Your task to perform on an android device: turn off data saver in the chrome app Image 0: 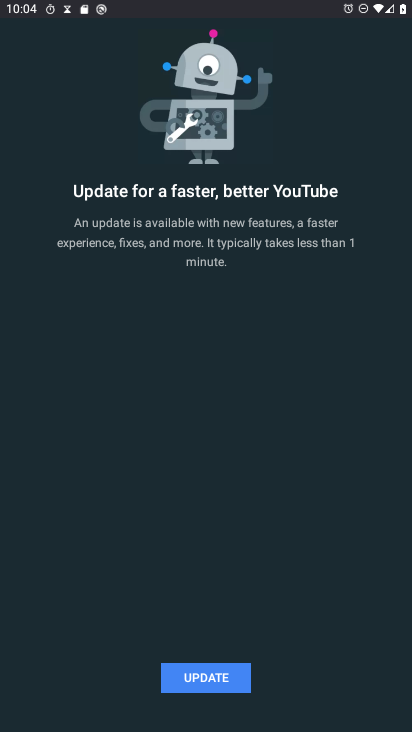
Step 0: press home button
Your task to perform on an android device: turn off data saver in the chrome app Image 1: 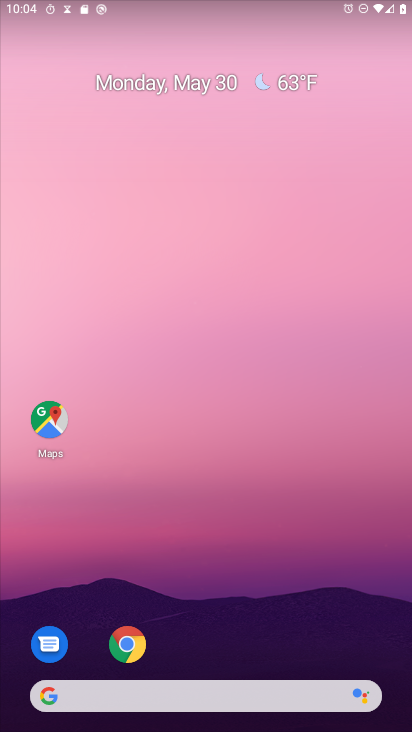
Step 1: drag from (236, 614) to (218, 35)
Your task to perform on an android device: turn off data saver in the chrome app Image 2: 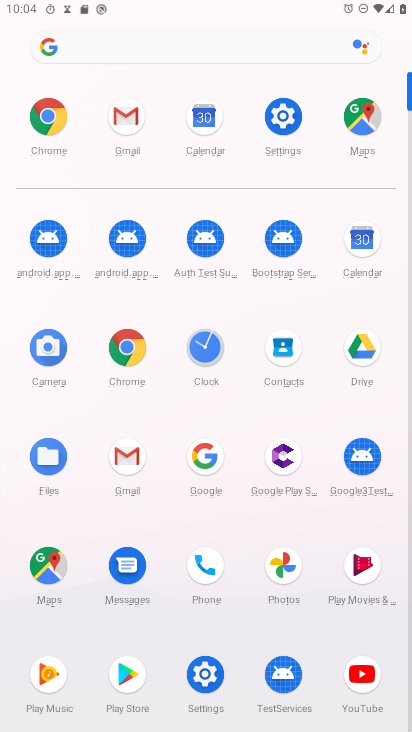
Step 2: click (127, 350)
Your task to perform on an android device: turn off data saver in the chrome app Image 3: 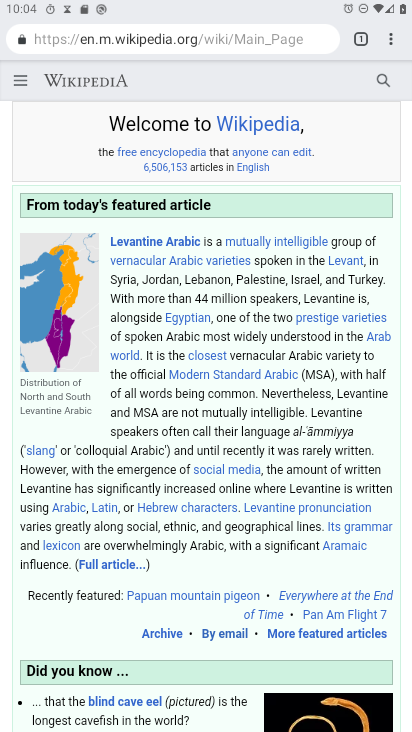
Step 3: click (387, 42)
Your task to perform on an android device: turn off data saver in the chrome app Image 4: 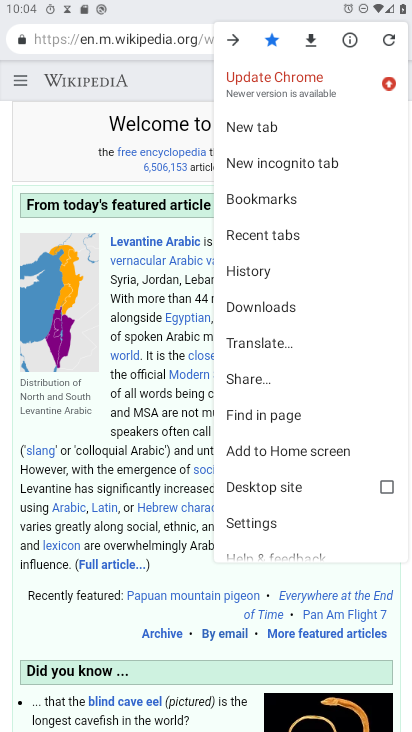
Step 4: click (266, 522)
Your task to perform on an android device: turn off data saver in the chrome app Image 5: 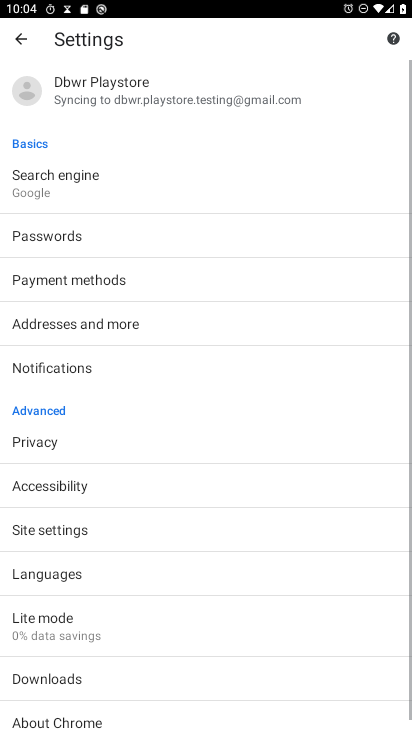
Step 5: click (74, 629)
Your task to perform on an android device: turn off data saver in the chrome app Image 6: 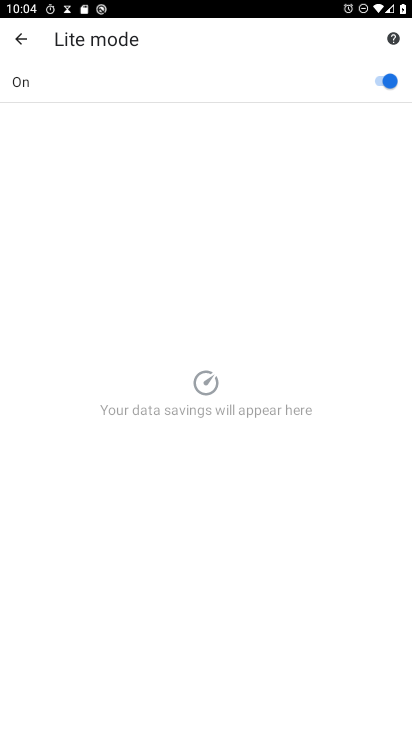
Step 6: click (389, 83)
Your task to perform on an android device: turn off data saver in the chrome app Image 7: 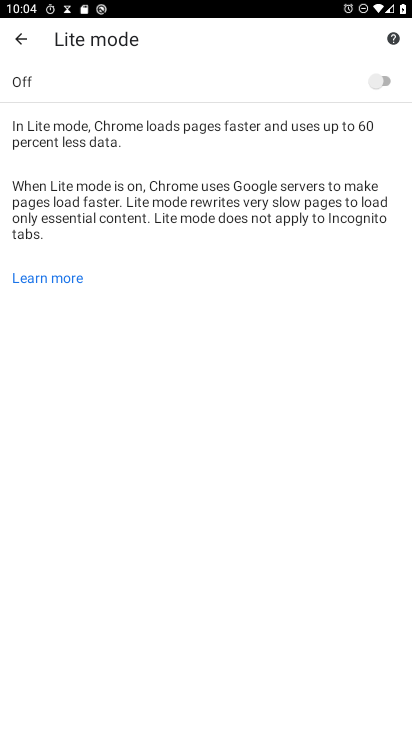
Step 7: task complete